Your task to perform on an android device: Clear the shopping cart on costco. Add "logitech g910" to the cart on costco, then select checkout. Image 0: 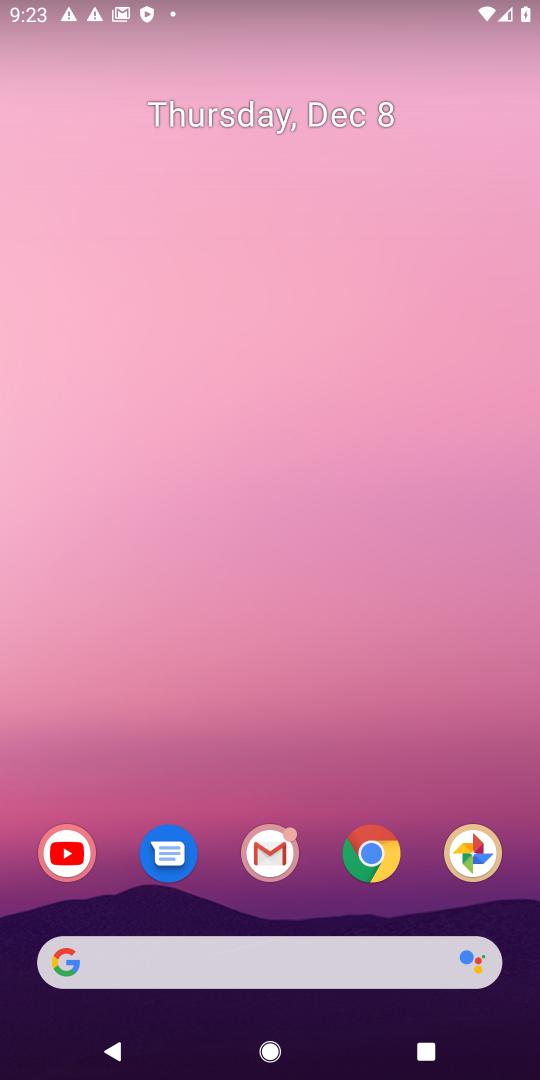
Step 0: click (353, 954)
Your task to perform on an android device: Clear the shopping cart on costco. Add "logitech g910" to the cart on costco, then select checkout. Image 1: 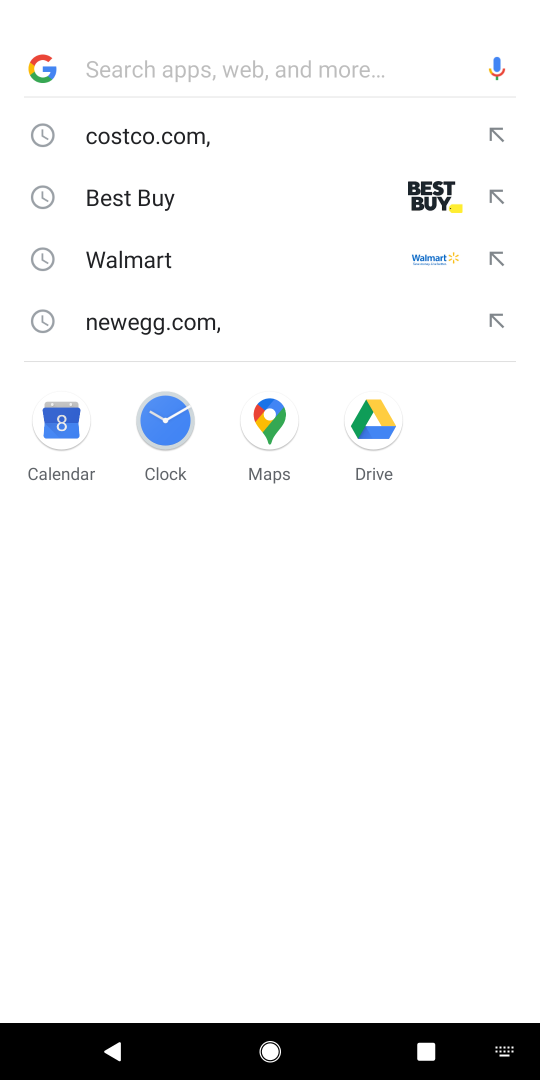
Step 1: click (109, 144)
Your task to perform on an android device: Clear the shopping cart on costco. Add "logitech g910" to the cart on costco, then select checkout. Image 2: 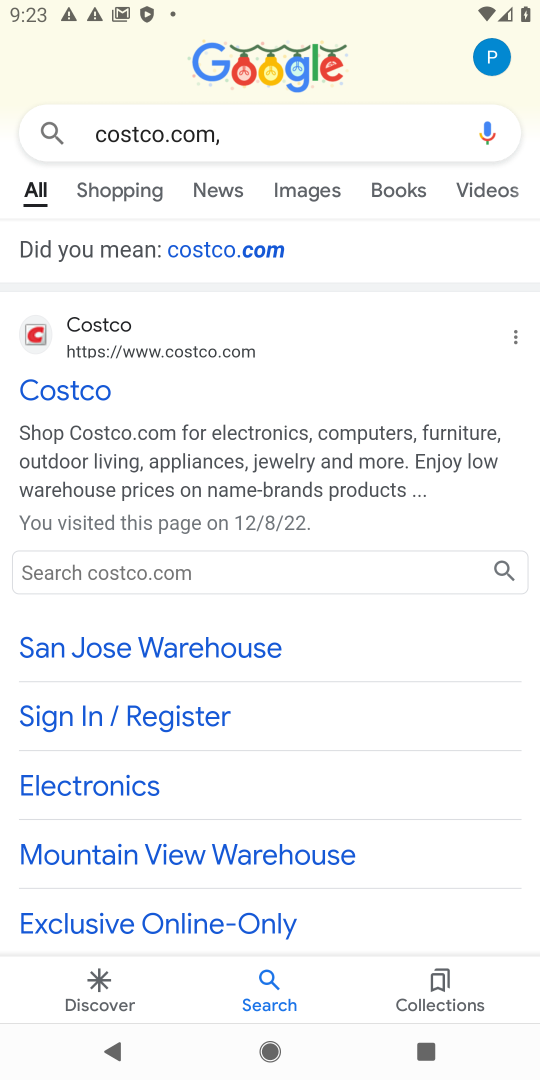
Step 2: click (45, 380)
Your task to perform on an android device: Clear the shopping cart on costco. Add "logitech g910" to the cart on costco, then select checkout. Image 3: 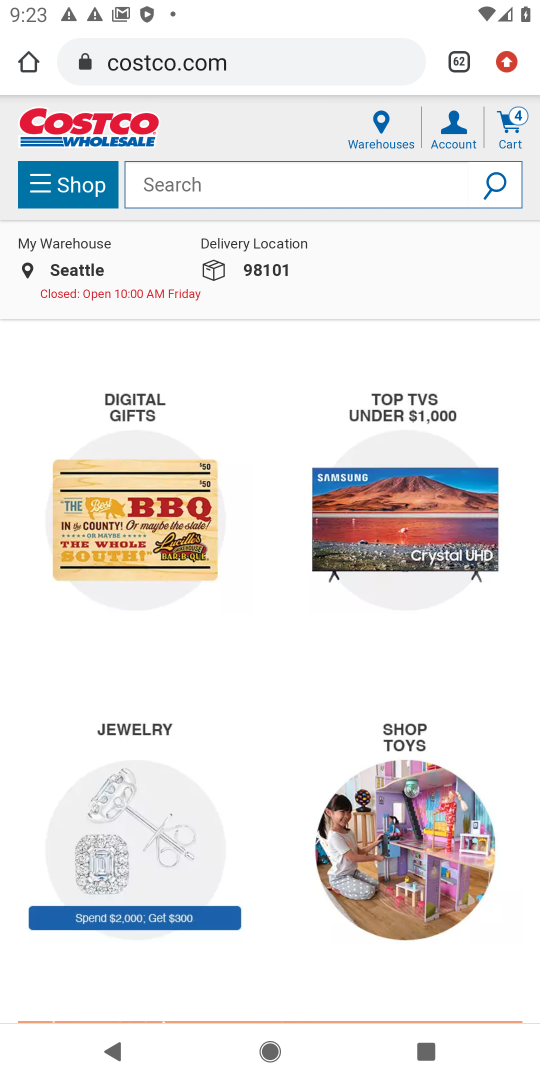
Step 3: click (508, 130)
Your task to perform on an android device: Clear the shopping cart on costco. Add "logitech g910" to the cart on costco, then select checkout. Image 4: 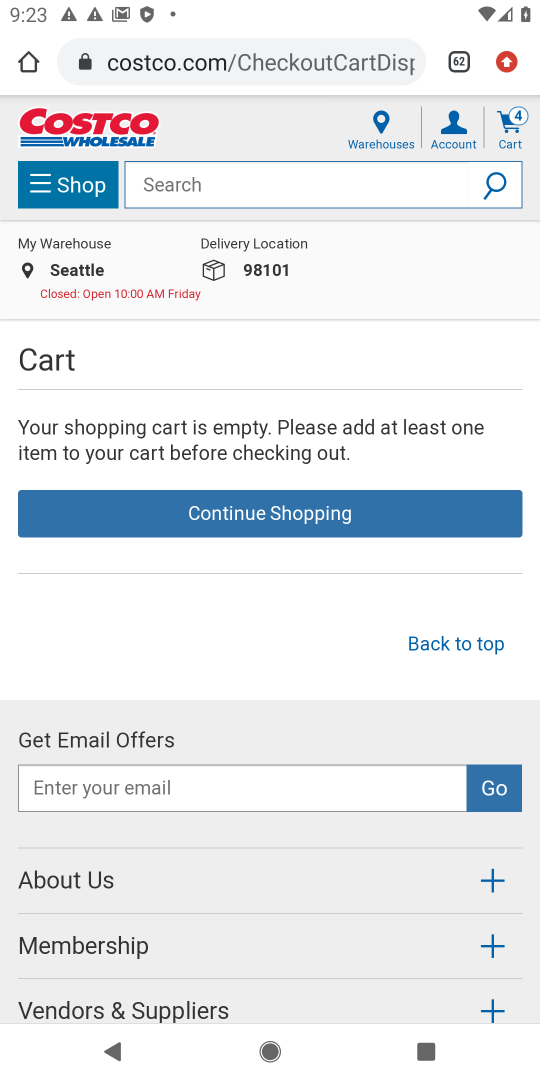
Step 4: click (238, 179)
Your task to perform on an android device: Clear the shopping cart on costco. Add "logitech g910" to the cart on costco, then select checkout. Image 5: 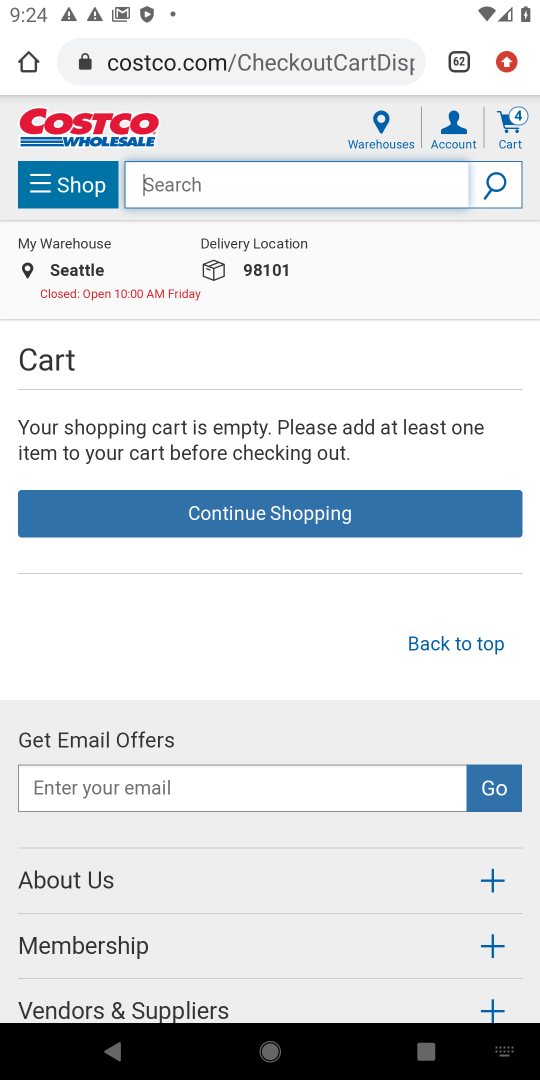
Step 5: type "logitech g910"
Your task to perform on an android device: Clear the shopping cart on costco. Add "logitech g910" to the cart on costco, then select checkout. Image 6: 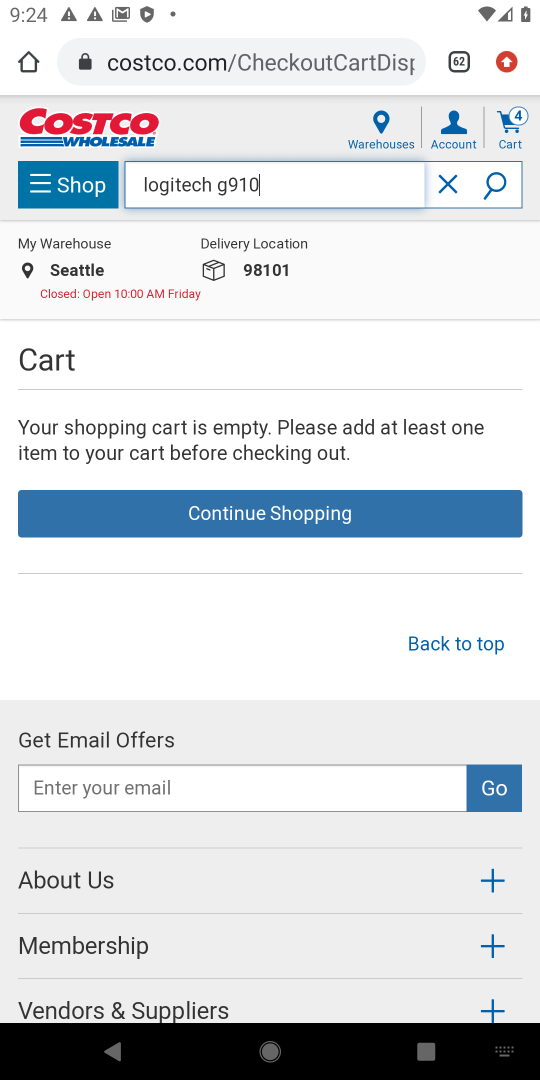
Step 6: click (499, 179)
Your task to perform on an android device: Clear the shopping cart on costco. Add "logitech g910" to the cart on costco, then select checkout. Image 7: 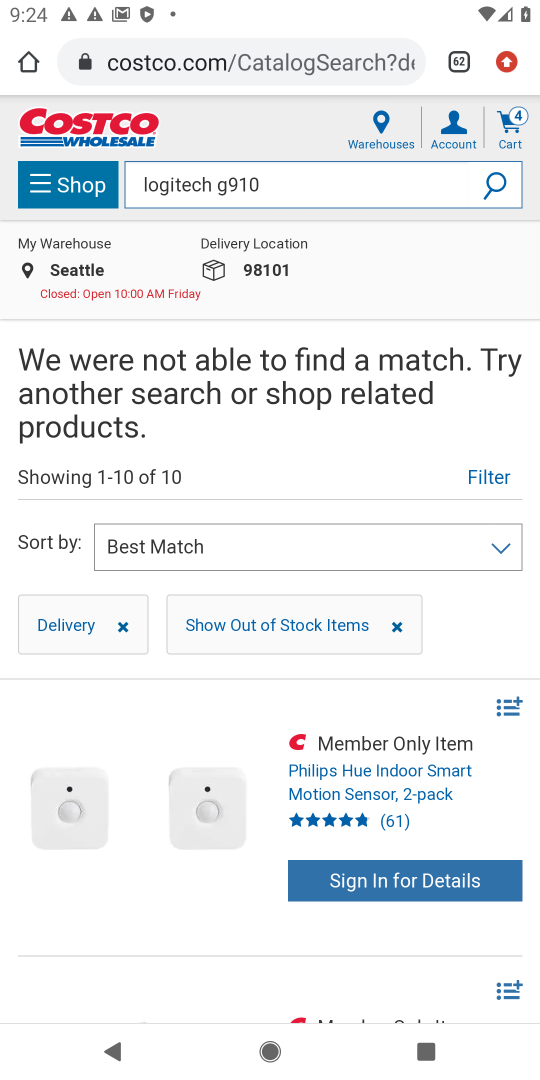
Step 7: task complete